Your task to perform on an android device: add a contact in the contacts app Image 0: 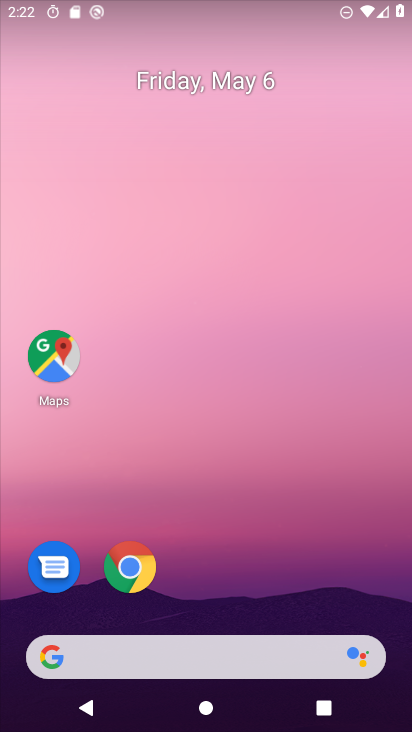
Step 0: drag from (292, 681) to (351, 258)
Your task to perform on an android device: add a contact in the contacts app Image 1: 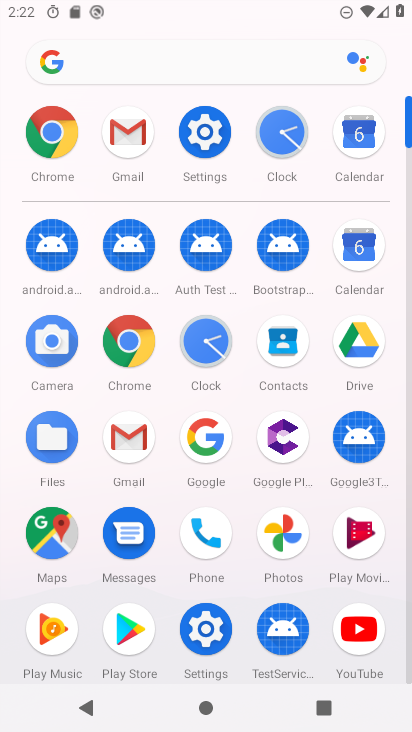
Step 1: click (209, 530)
Your task to perform on an android device: add a contact in the contacts app Image 2: 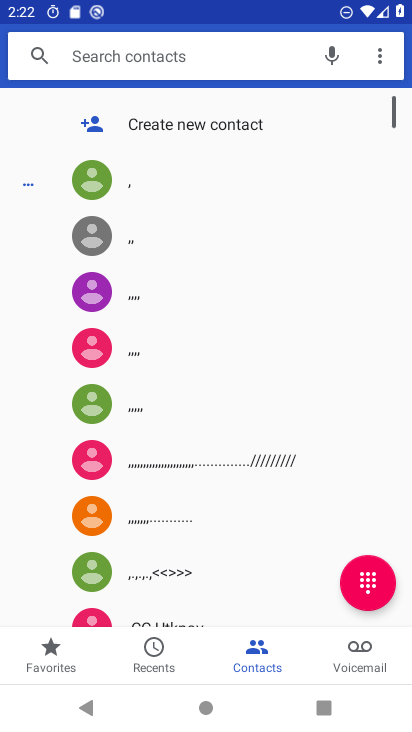
Step 2: click (181, 138)
Your task to perform on an android device: add a contact in the contacts app Image 3: 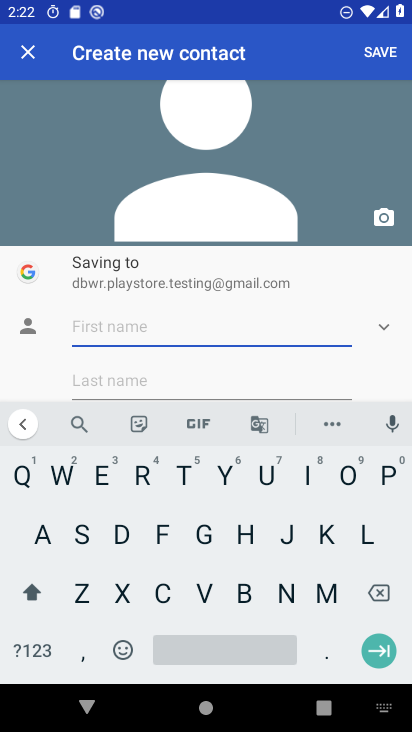
Step 3: click (102, 485)
Your task to perform on an android device: add a contact in the contacts app Image 4: 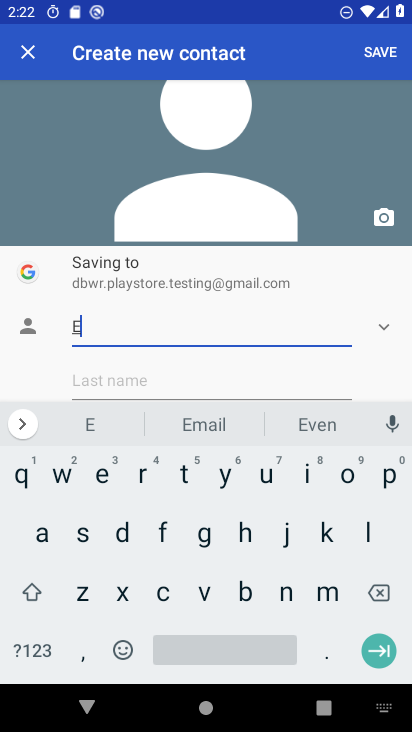
Step 4: click (124, 582)
Your task to perform on an android device: add a contact in the contacts app Image 5: 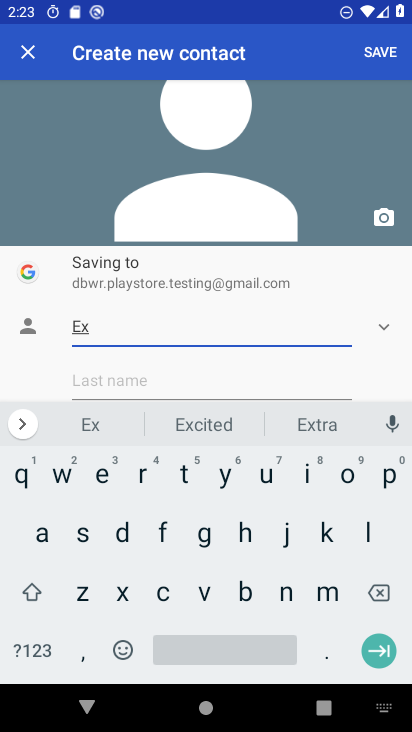
Step 5: click (367, 527)
Your task to perform on an android device: add a contact in the contacts app Image 6: 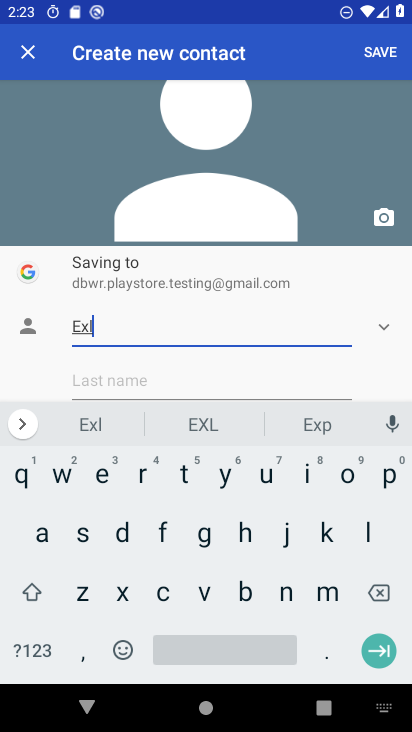
Step 6: drag from (246, 369) to (272, 258)
Your task to perform on an android device: add a contact in the contacts app Image 7: 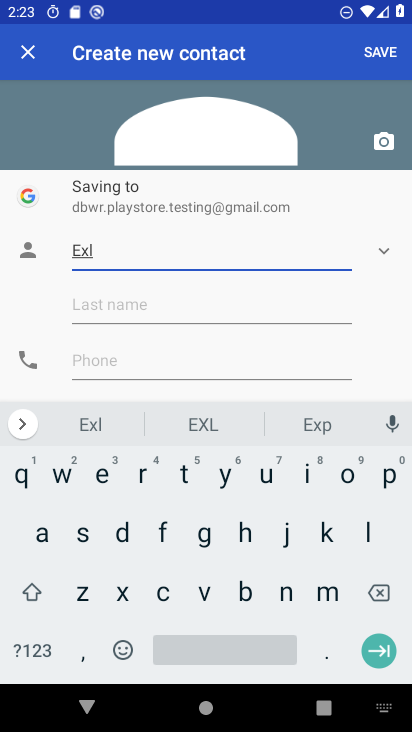
Step 7: click (104, 358)
Your task to perform on an android device: add a contact in the contacts app Image 8: 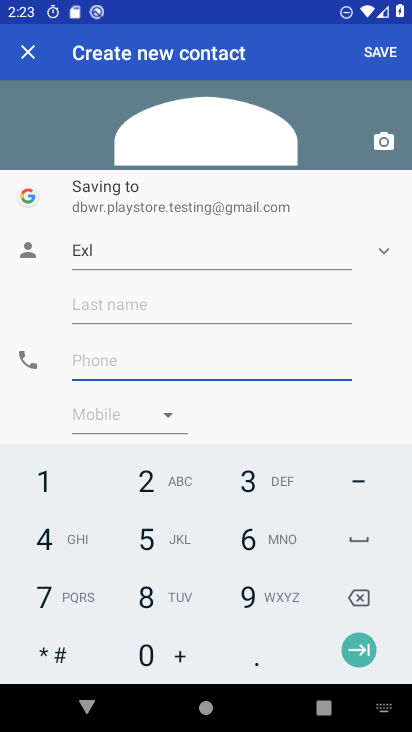
Step 8: click (147, 485)
Your task to perform on an android device: add a contact in the contacts app Image 9: 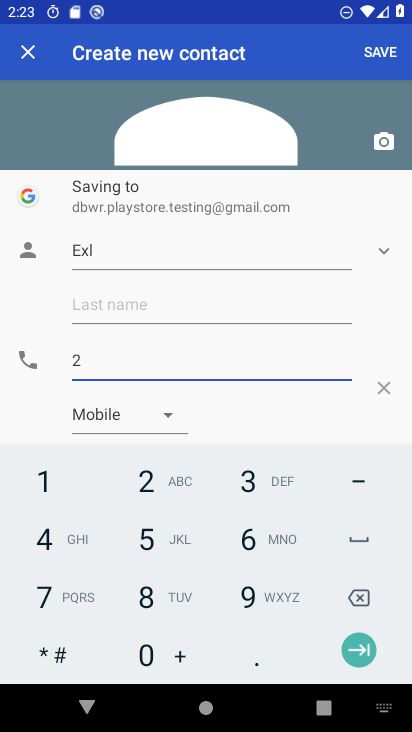
Step 9: click (170, 566)
Your task to perform on an android device: add a contact in the contacts app Image 10: 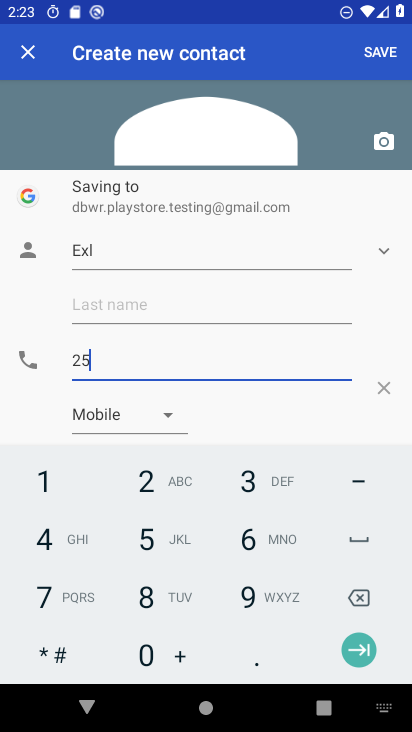
Step 10: click (285, 539)
Your task to perform on an android device: add a contact in the contacts app Image 11: 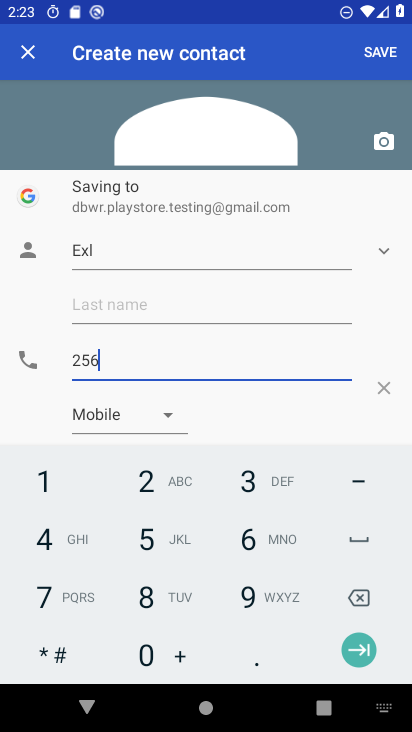
Step 11: click (60, 525)
Your task to perform on an android device: add a contact in the contacts app Image 12: 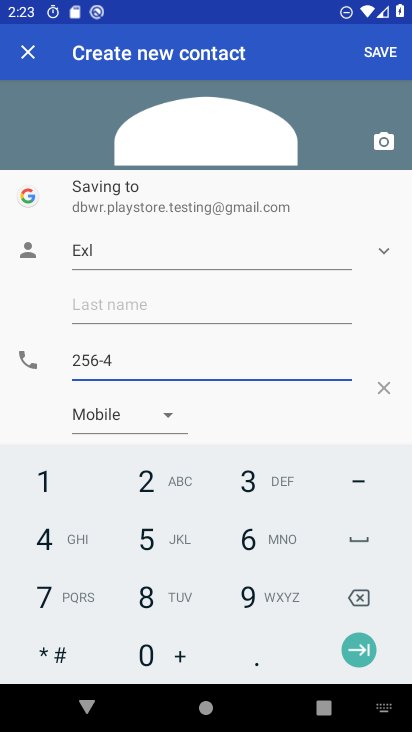
Step 12: click (194, 519)
Your task to perform on an android device: add a contact in the contacts app Image 13: 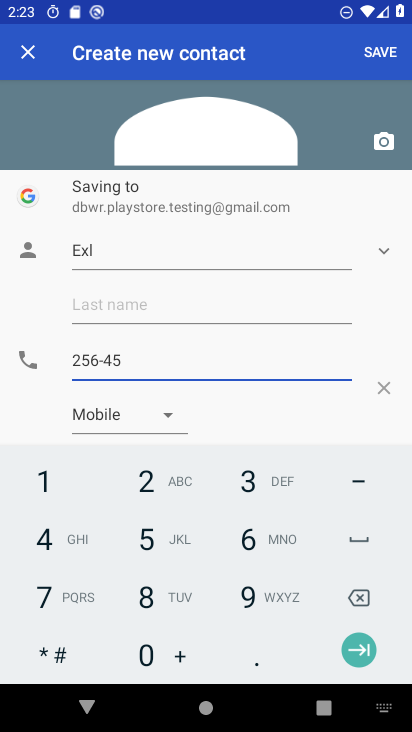
Step 13: click (360, 53)
Your task to perform on an android device: add a contact in the contacts app Image 14: 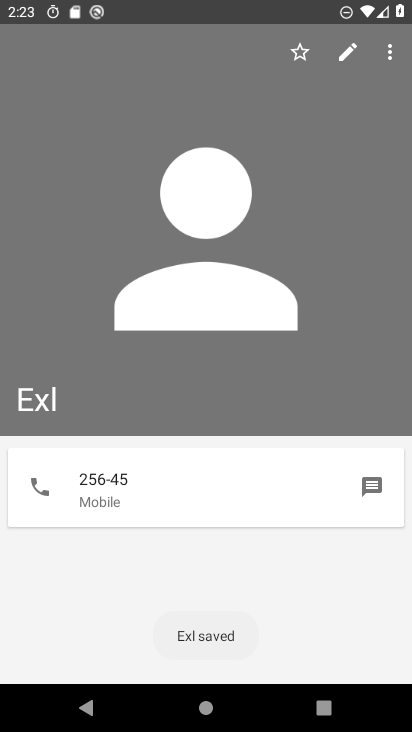
Step 14: task complete